Your task to perform on an android device: Go to Maps Image 0: 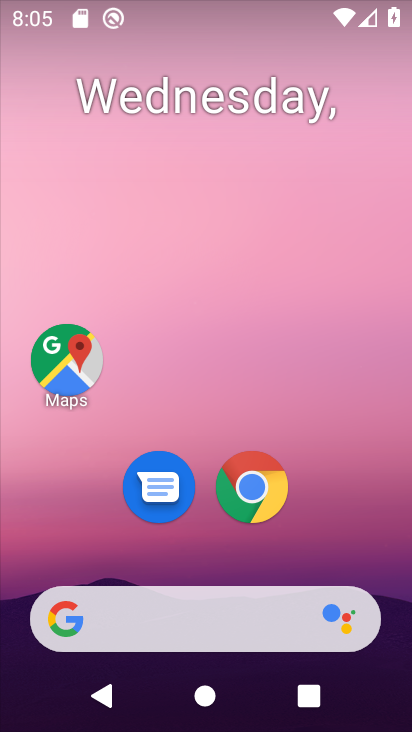
Step 0: click (64, 363)
Your task to perform on an android device: Go to Maps Image 1: 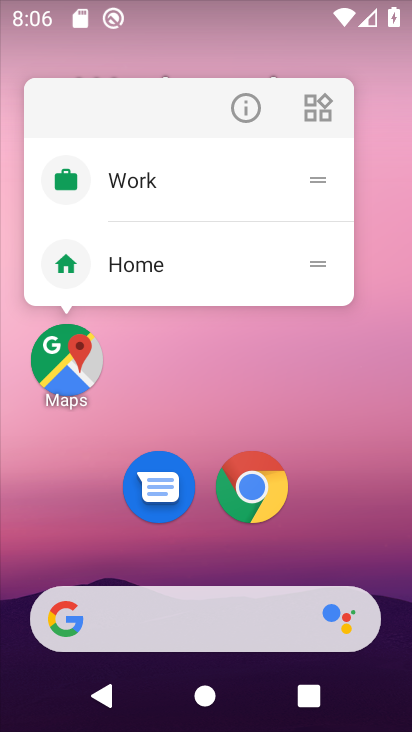
Step 1: click (64, 363)
Your task to perform on an android device: Go to Maps Image 2: 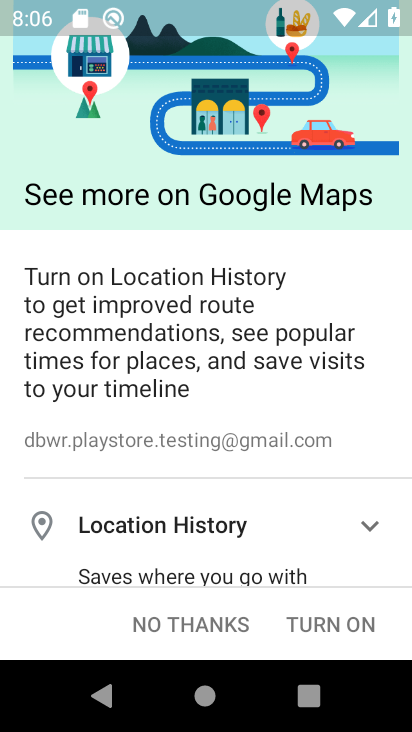
Step 2: click (186, 632)
Your task to perform on an android device: Go to Maps Image 3: 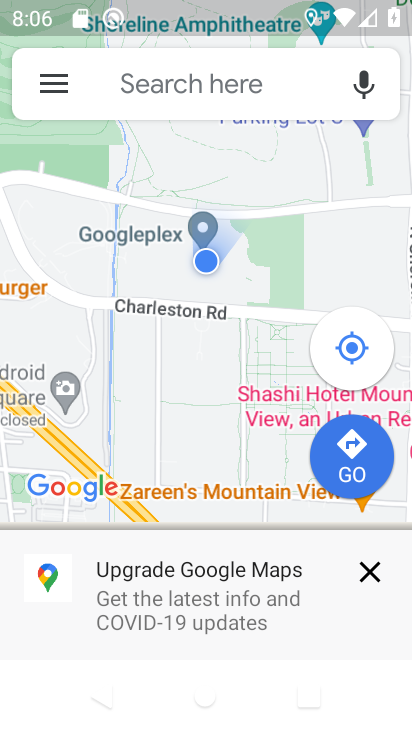
Step 3: click (369, 567)
Your task to perform on an android device: Go to Maps Image 4: 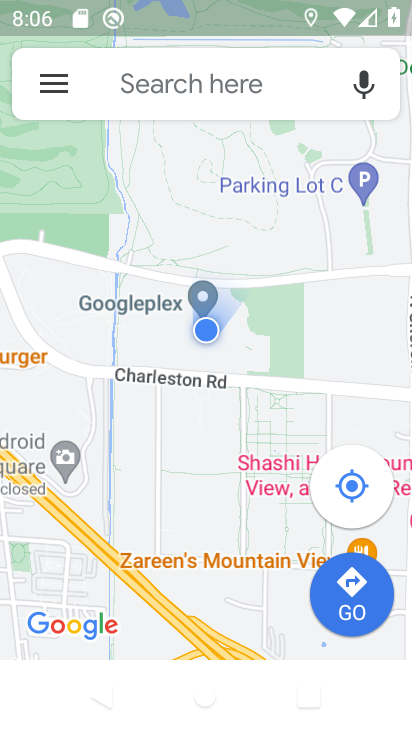
Step 4: task complete